Your task to perform on an android device: turn off data saver in the chrome app Image 0: 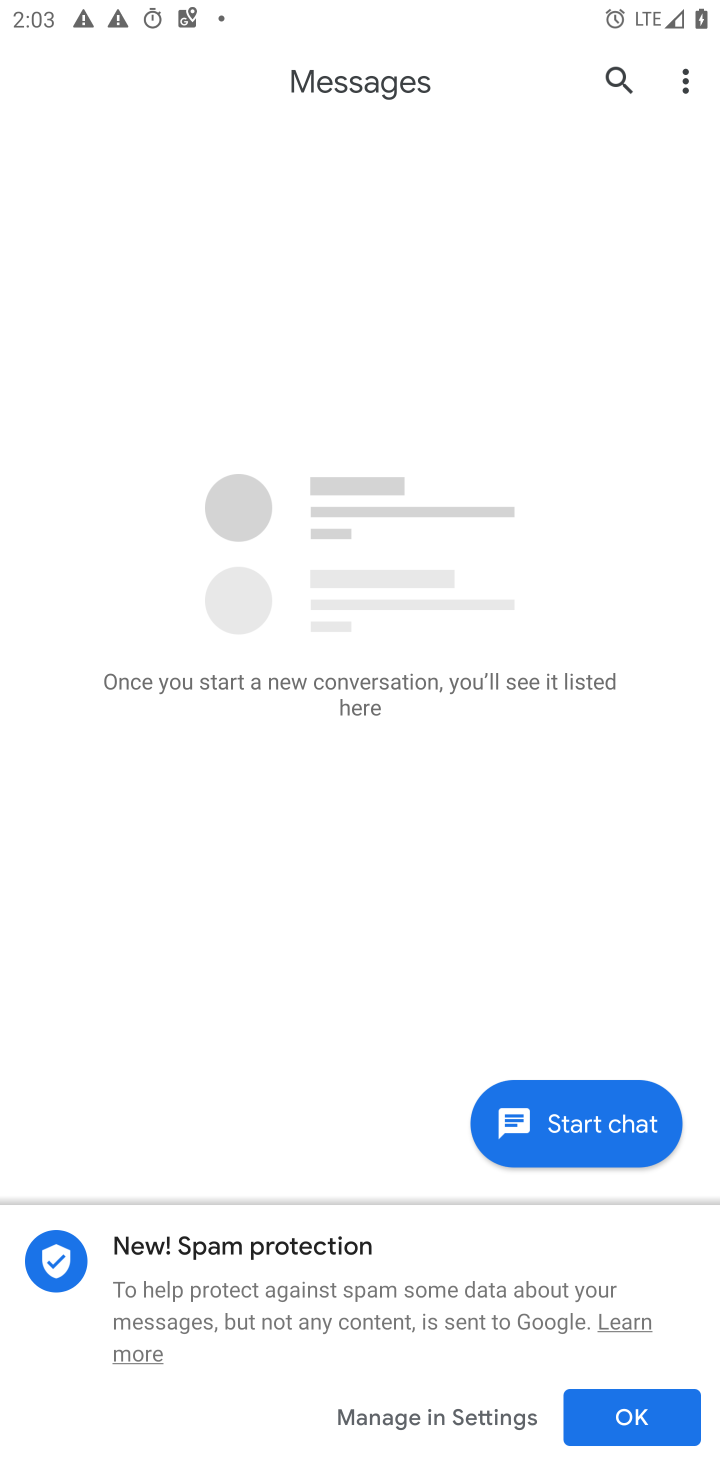
Step 0: press home button
Your task to perform on an android device: turn off data saver in the chrome app Image 1: 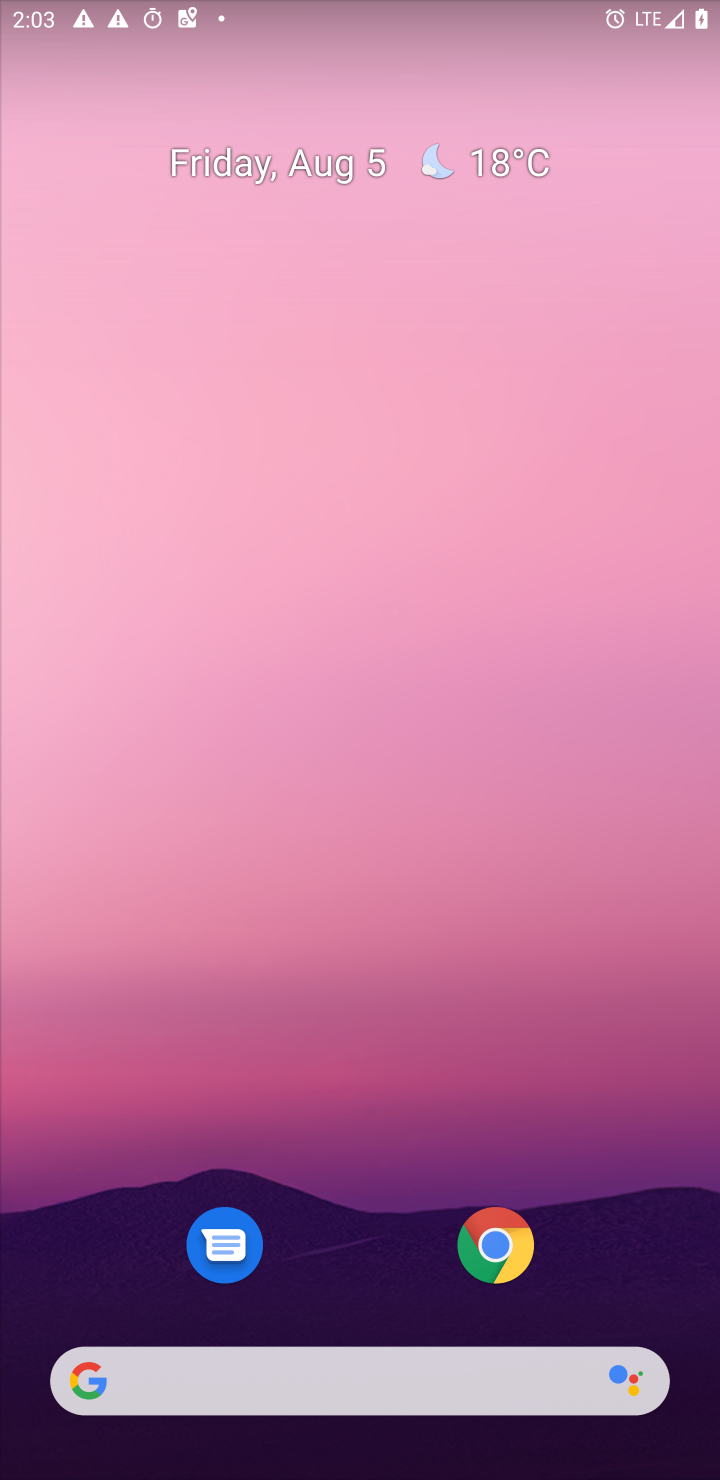
Step 1: drag from (330, 1096) to (475, 487)
Your task to perform on an android device: turn off data saver in the chrome app Image 2: 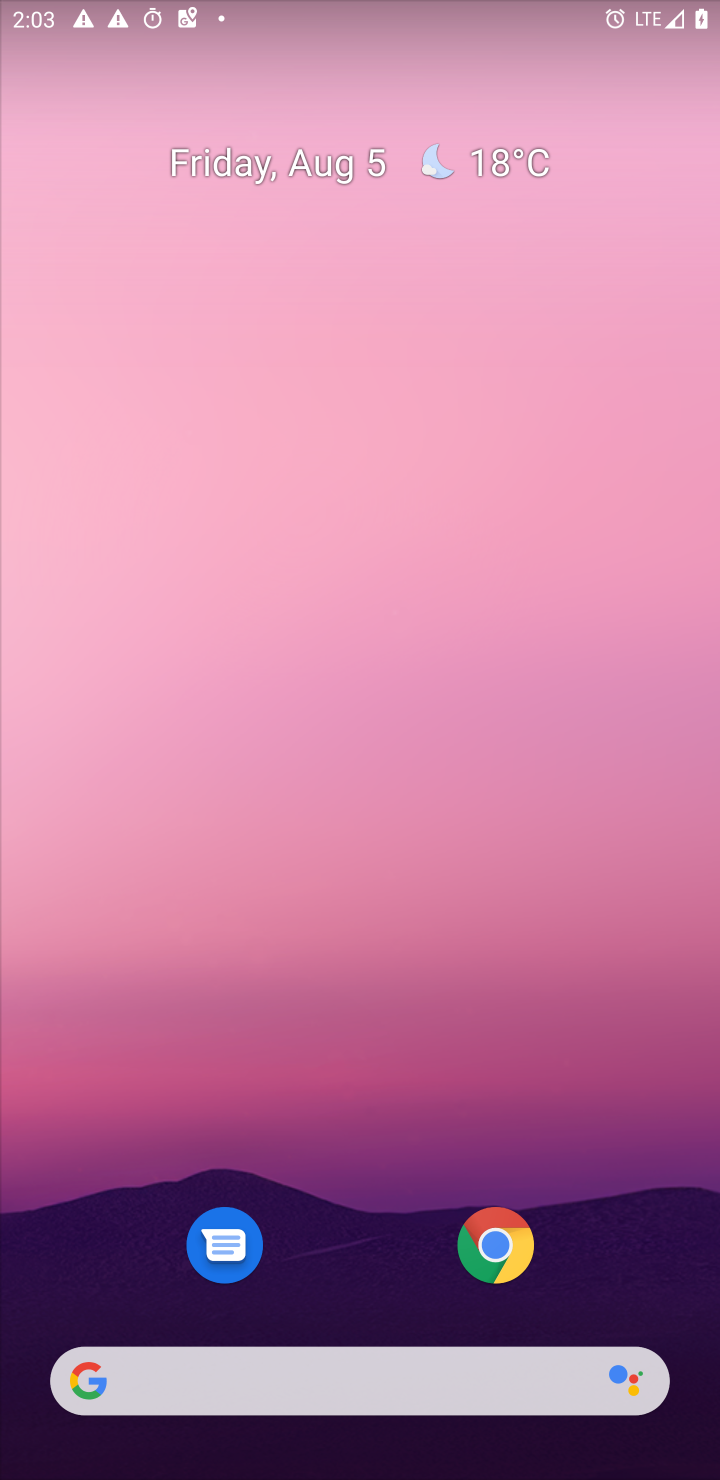
Step 2: drag from (424, 1027) to (554, 340)
Your task to perform on an android device: turn off data saver in the chrome app Image 3: 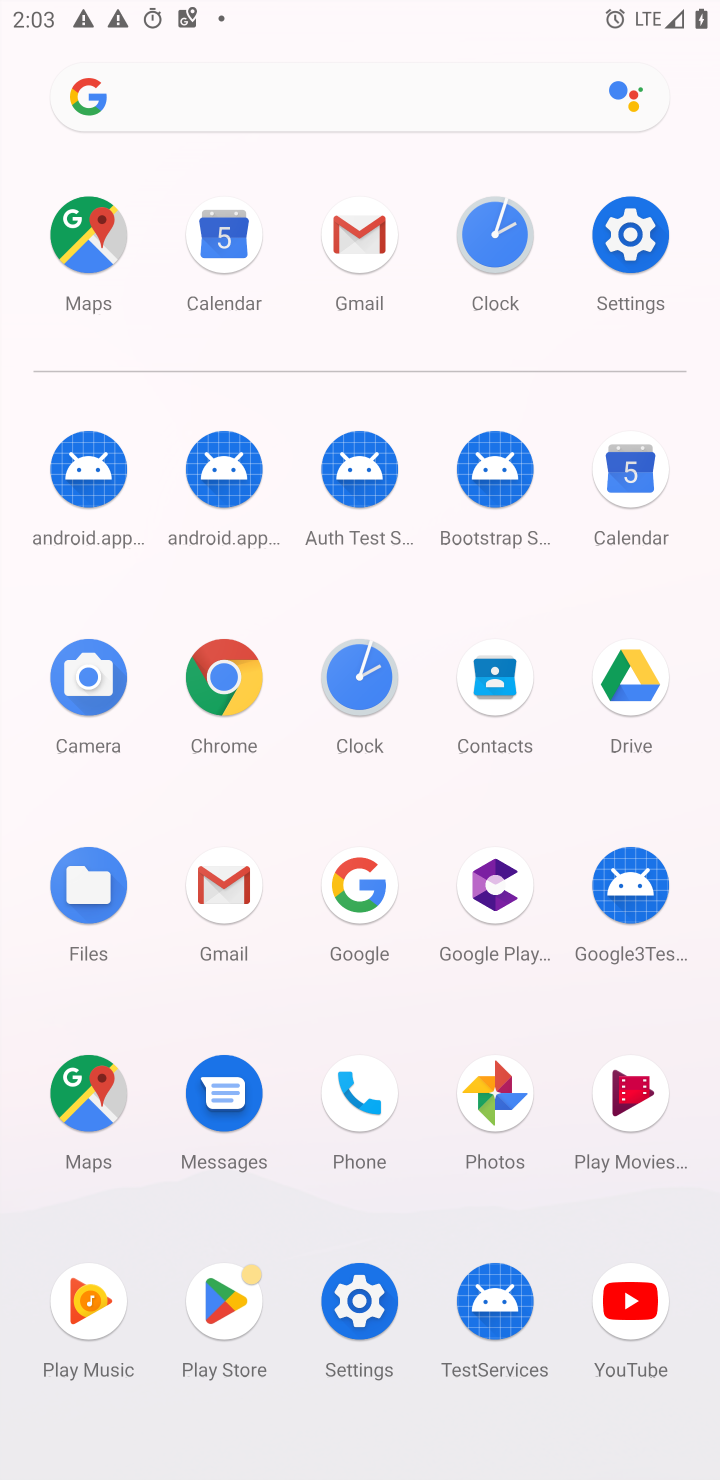
Step 3: click (229, 687)
Your task to perform on an android device: turn off data saver in the chrome app Image 4: 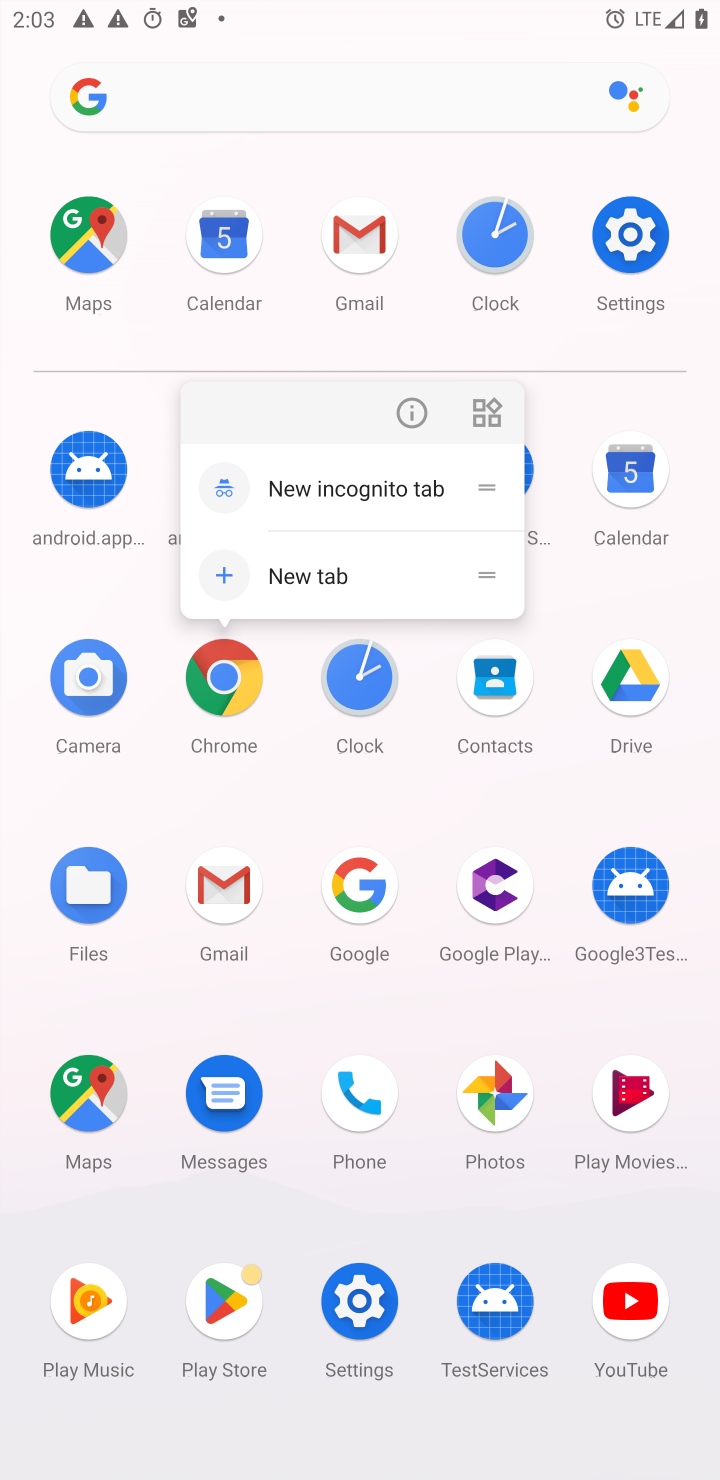
Step 4: click (230, 676)
Your task to perform on an android device: turn off data saver in the chrome app Image 5: 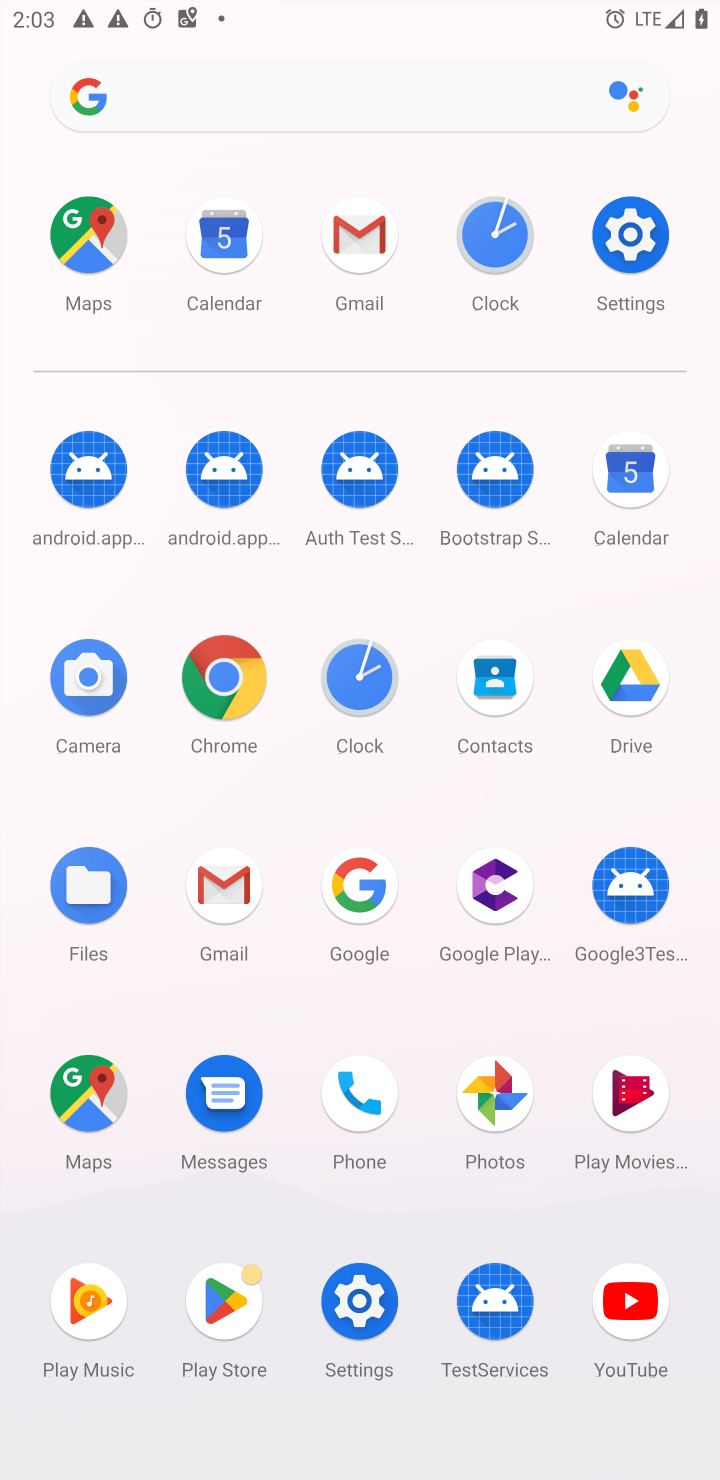
Step 5: click (230, 676)
Your task to perform on an android device: turn off data saver in the chrome app Image 6: 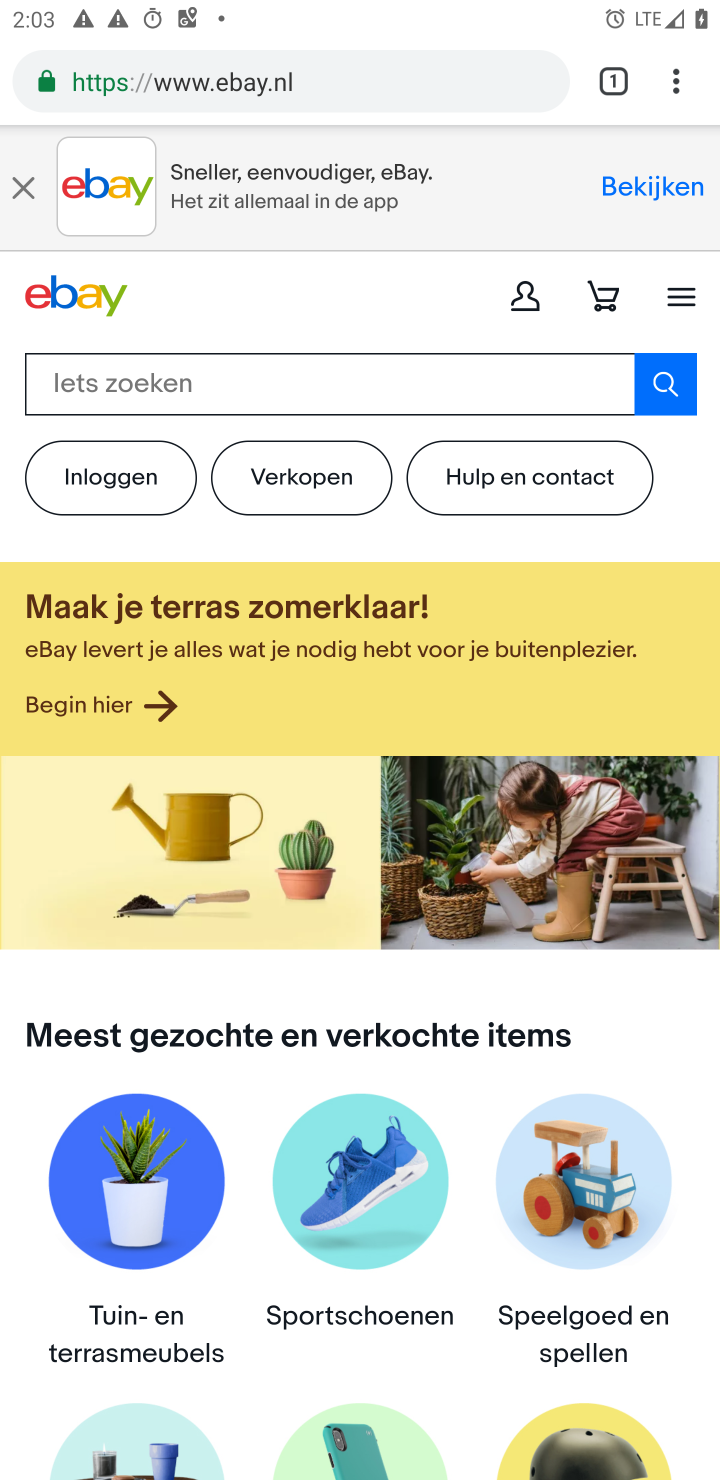
Step 6: drag from (688, 98) to (387, 1069)
Your task to perform on an android device: turn off data saver in the chrome app Image 7: 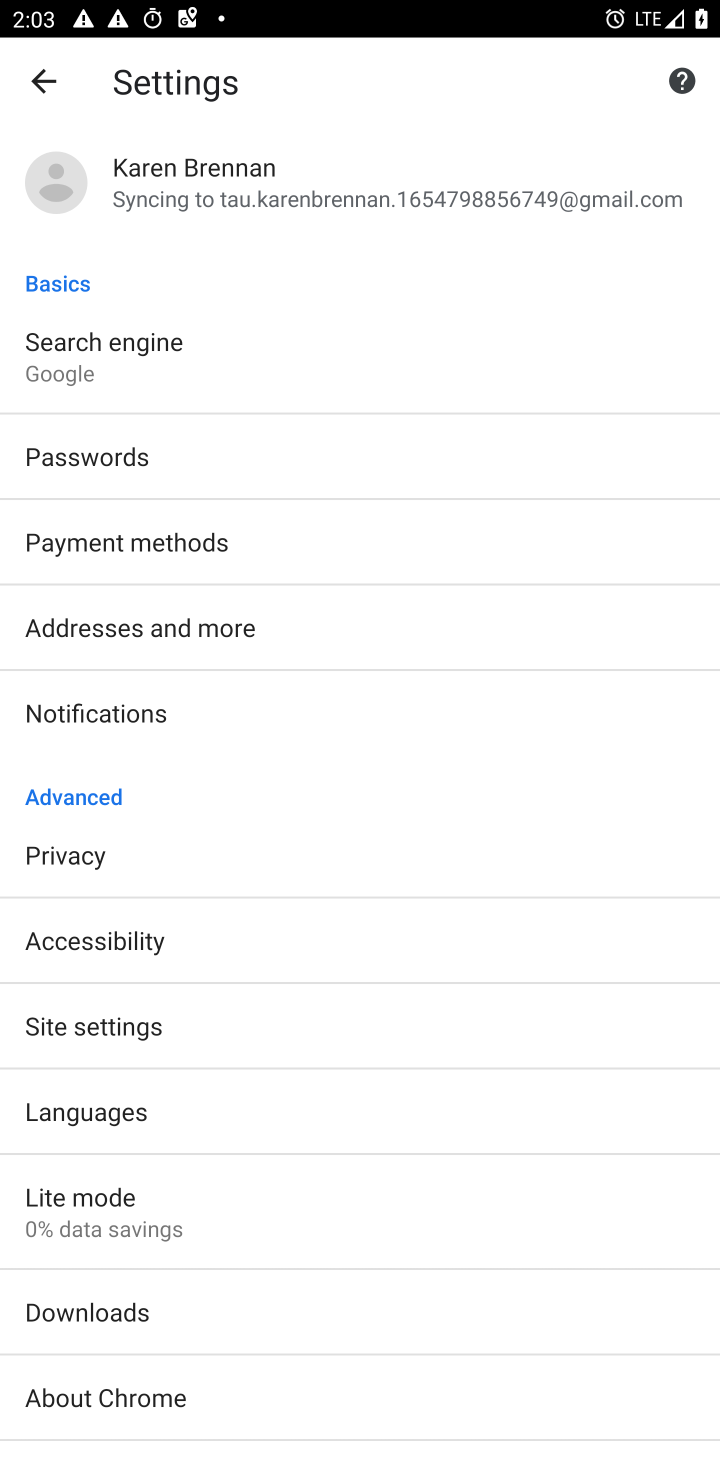
Step 7: drag from (512, 1378) to (578, 773)
Your task to perform on an android device: turn off data saver in the chrome app Image 8: 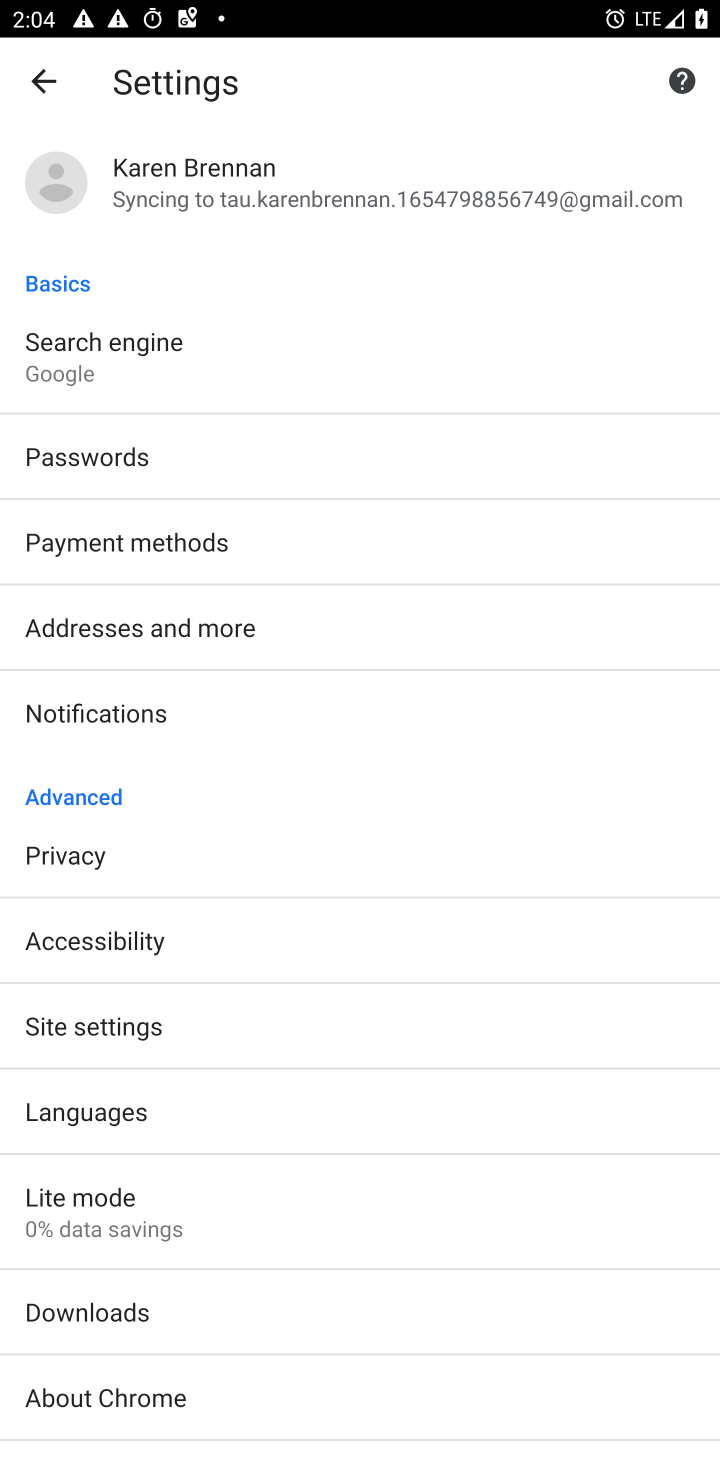
Step 8: click (71, 1205)
Your task to perform on an android device: turn off data saver in the chrome app Image 9: 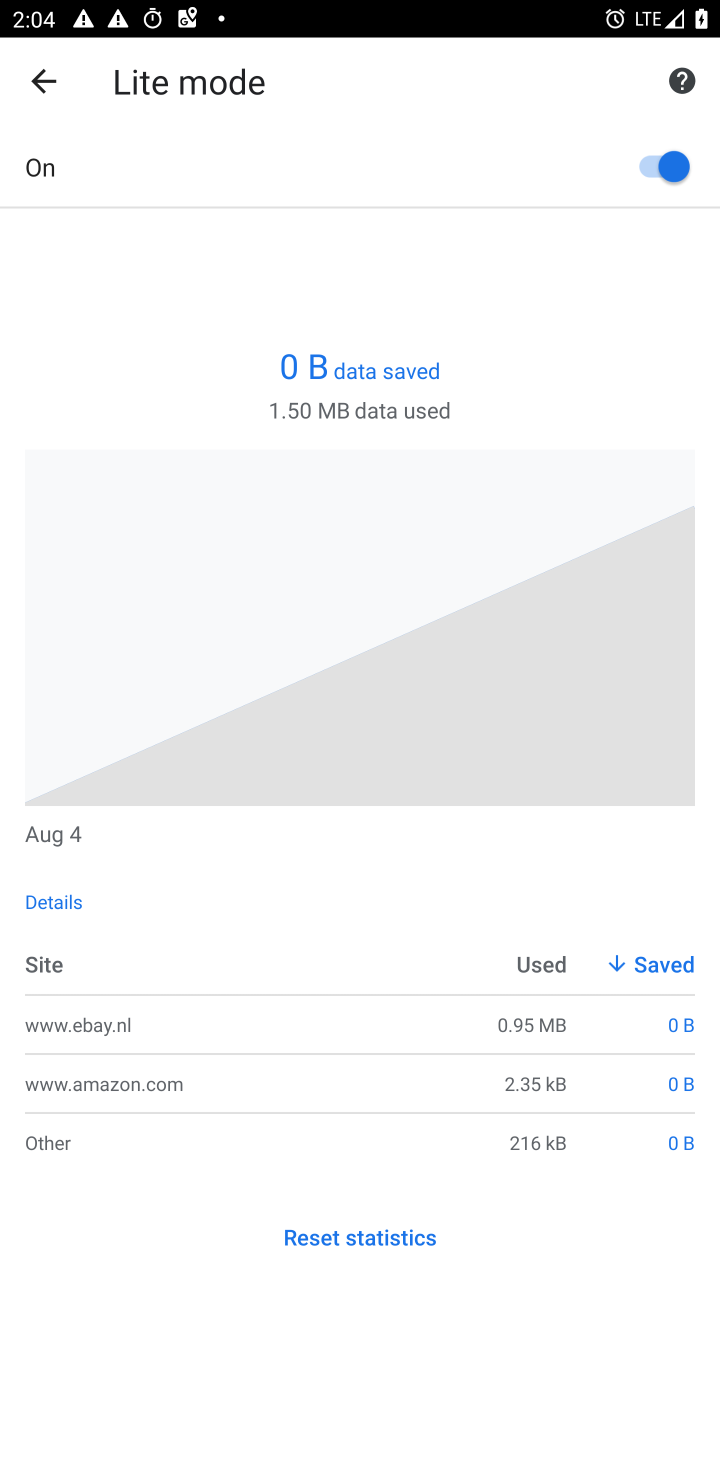
Step 9: click (662, 170)
Your task to perform on an android device: turn off data saver in the chrome app Image 10: 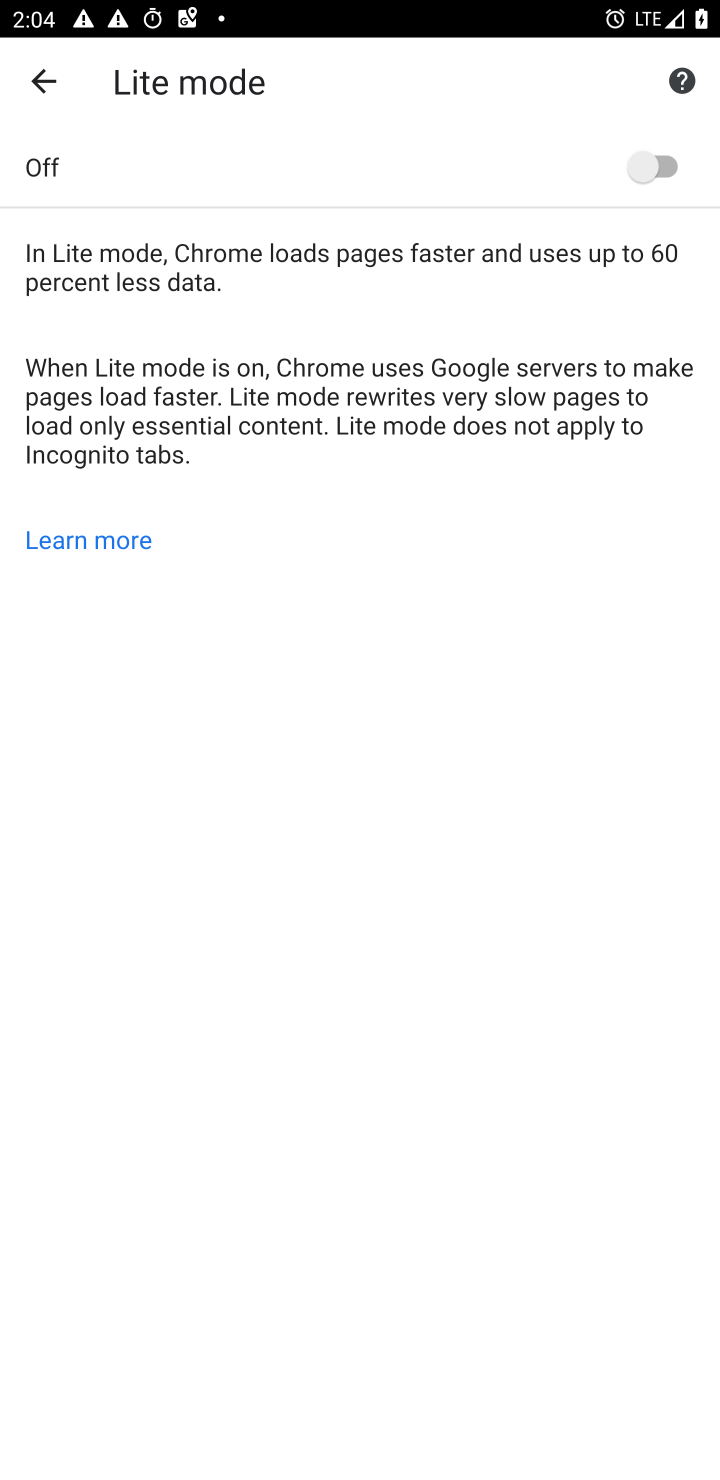
Step 10: task complete